Your task to perform on an android device: Check the news Image 0: 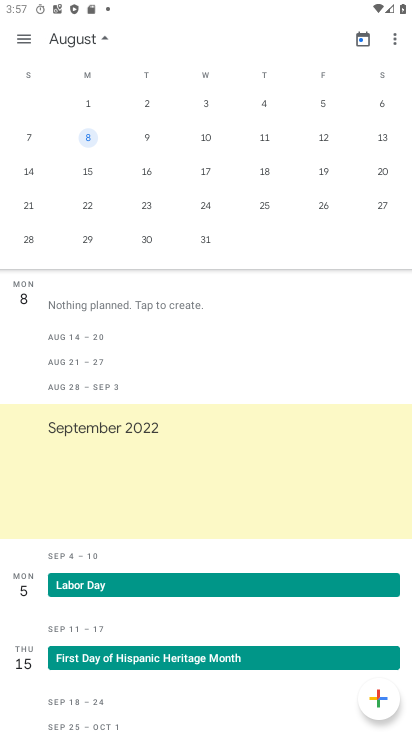
Step 0: press back button
Your task to perform on an android device: Check the news Image 1: 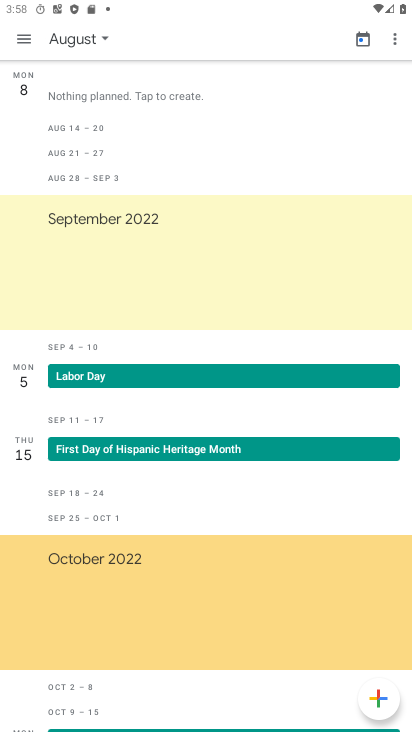
Step 1: press back button
Your task to perform on an android device: Check the news Image 2: 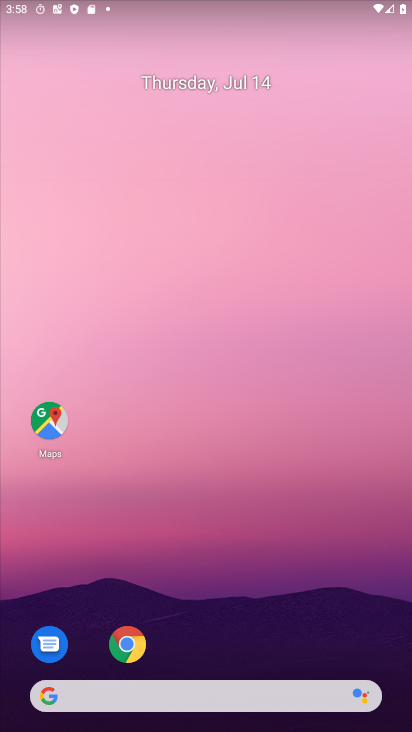
Step 2: click (130, 696)
Your task to perform on an android device: Check the news Image 3: 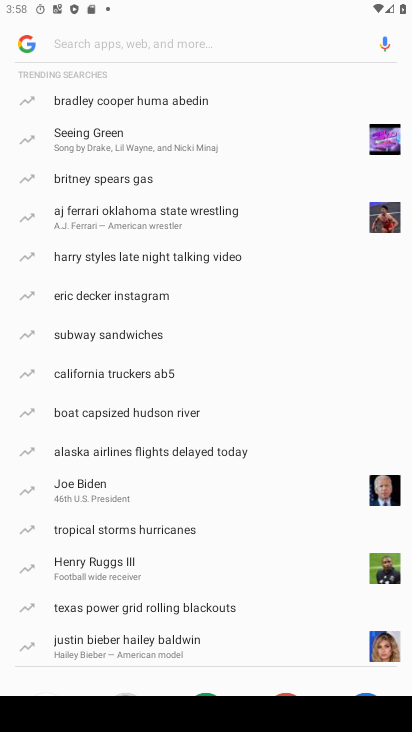
Step 3: type "news"
Your task to perform on an android device: Check the news Image 4: 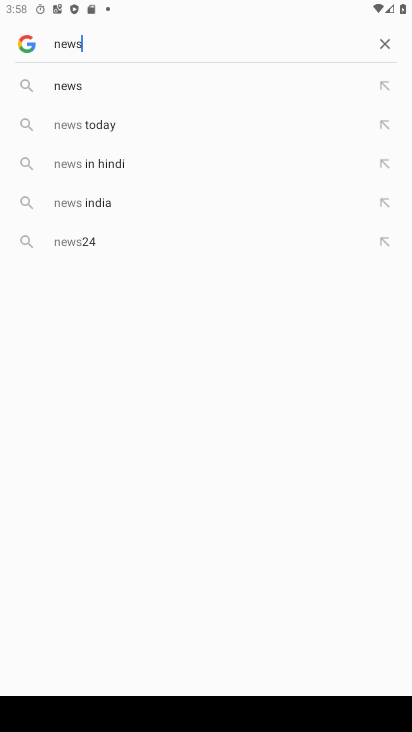
Step 4: click (81, 82)
Your task to perform on an android device: Check the news Image 5: 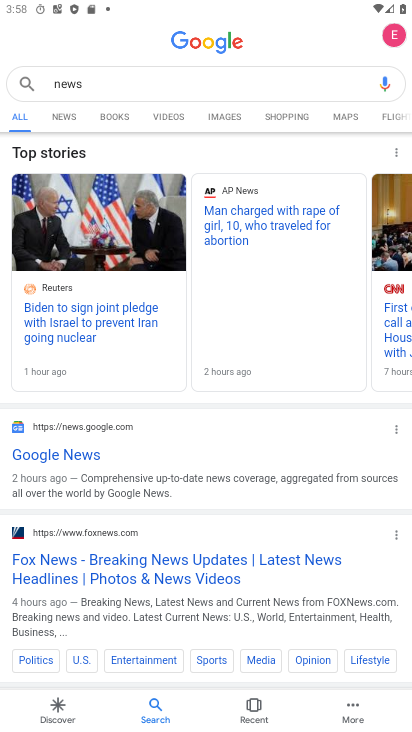
Step 5: task complete